Your task to perform on an android device: Go to Google maps Image 0: 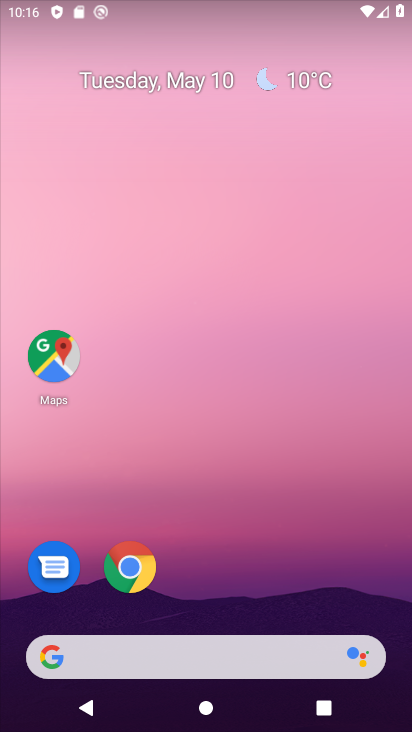
Step 0: click (56, 371)
Your task to perform on an android device: Go to Google maps Image 1: 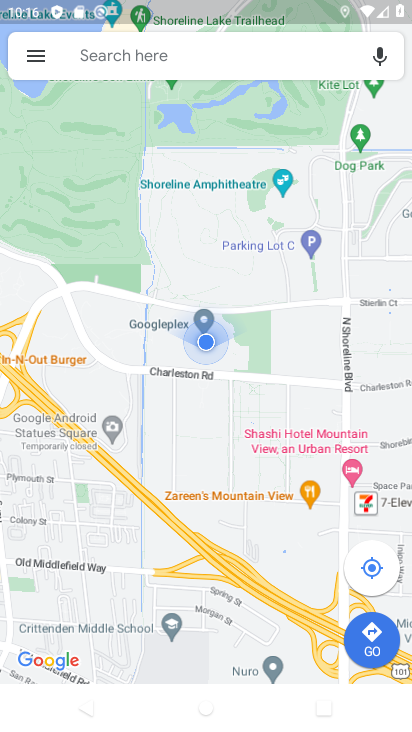
Step 1: task complete